Your task to perform on an android device: Open accessibility settings Image 0: 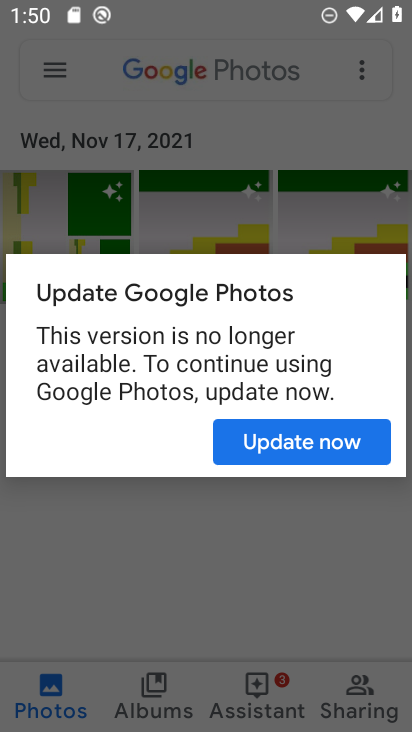
Step 0: press home button
Your task to perform on an android device: Open accessibility settings Image 1: 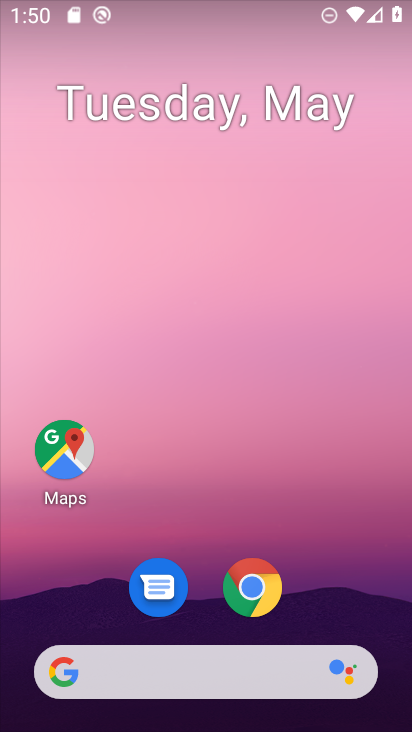
Step 1: drag from (203, 627) to (139, 49)
Your task to perform on an android device: Open accessibility settings Image 2: 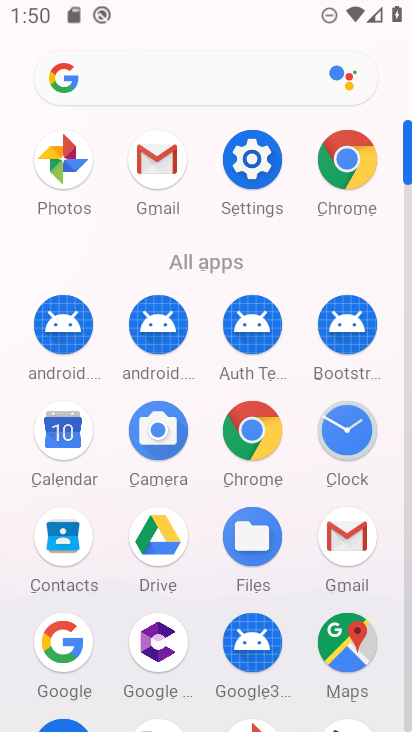
Step 2: click (256, 174)
Your task to perform on an android device: Open accessibility settings Image 3: 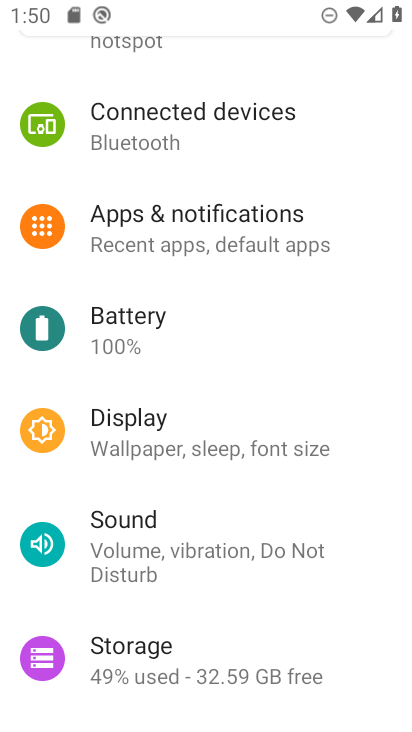
Step 3: drag from (193, 599) to (219, 96)
Your task to perform on an android device: Open accessibility settings Image 4: 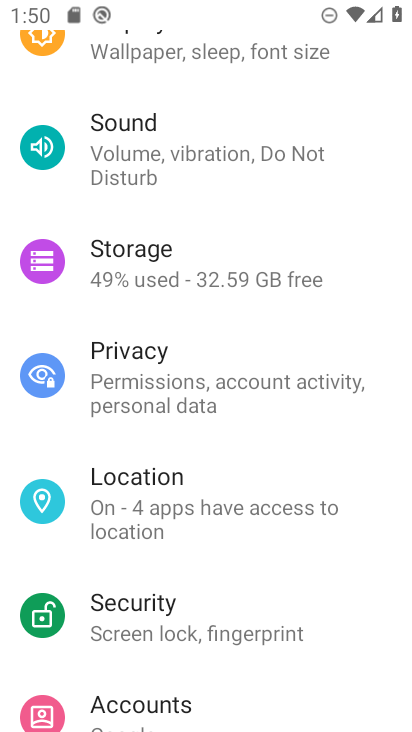
Step 4: drag from (192, 634) to (240, 169)
Your task to perform on an android device: Open accessibility settings Image 5: 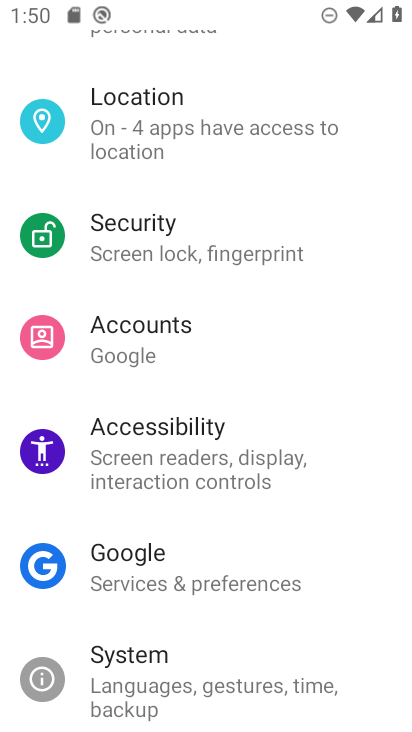
Step 5: click (156, 430)
Your task to perform on an android device: Open accessibility settings Image 6: 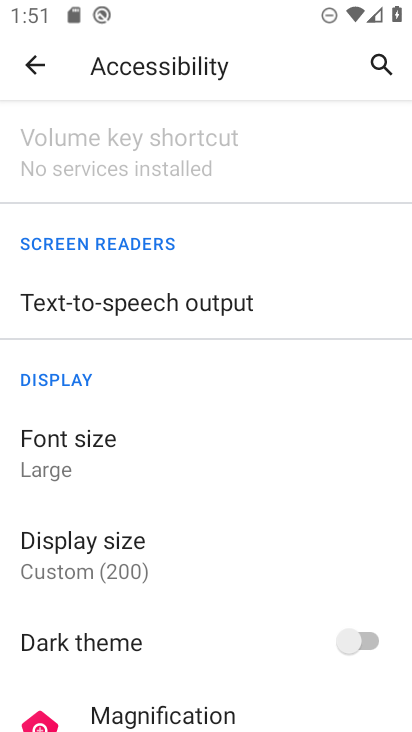
Step 6: task complete